Your task to perform on an android device: star an email in the gmail app Image 0: 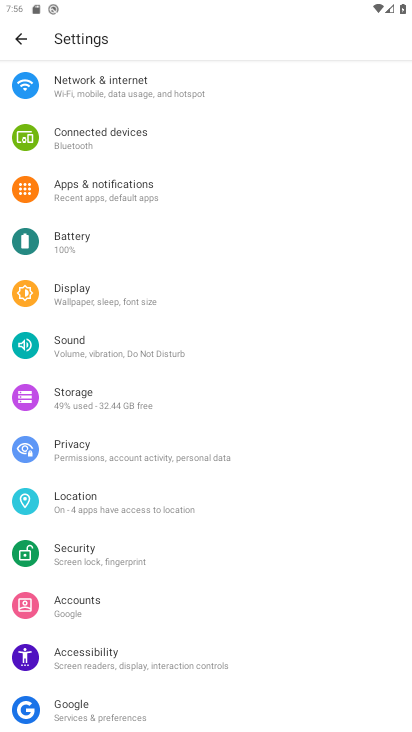
Step 0: press home button
Your task to perform on an android device: star an email in the gmail app Image 1: 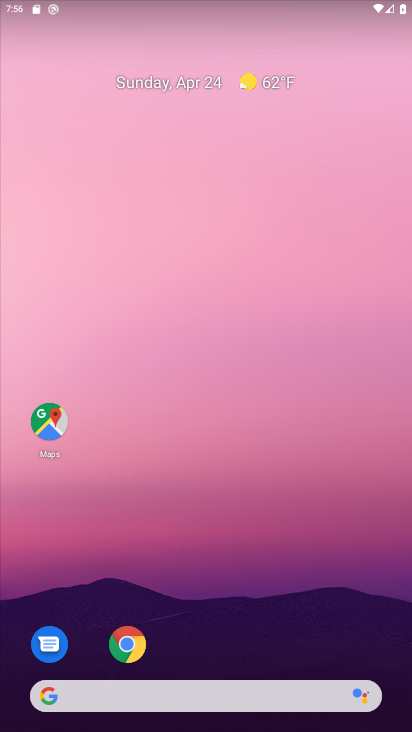
Step 1: drag from (210, 654) to (240, 41)
Your task to perform on an android device: star an email in the gmail app Image 2: 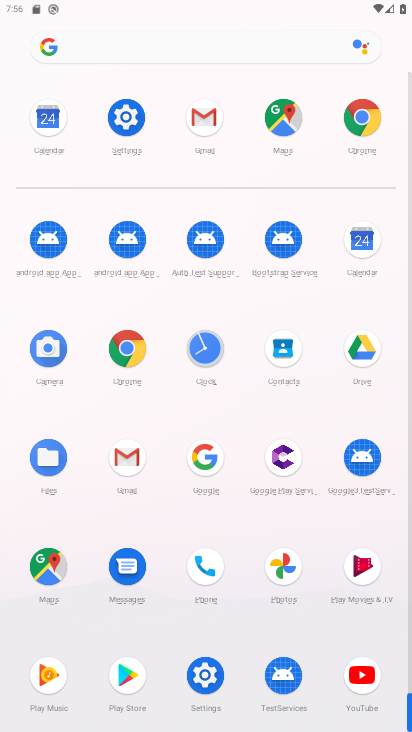
Step 2: click (125, 454)
Your task to perform on an android device: star an email in the gmail app Image 3: 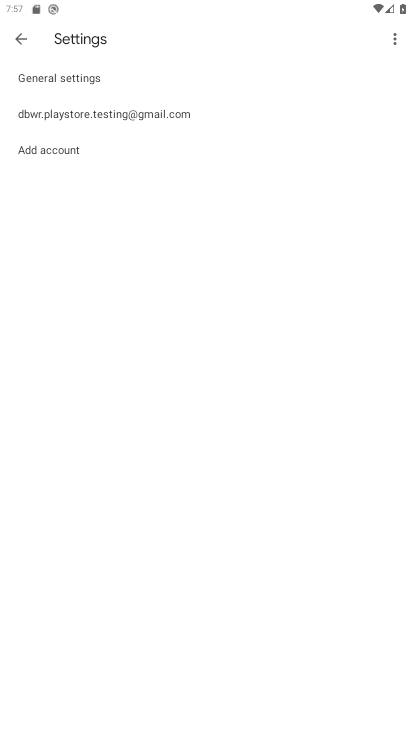
Step 3: click (24, 38)
Your task to perform on an android device: star an email in the gmail app Image 4: 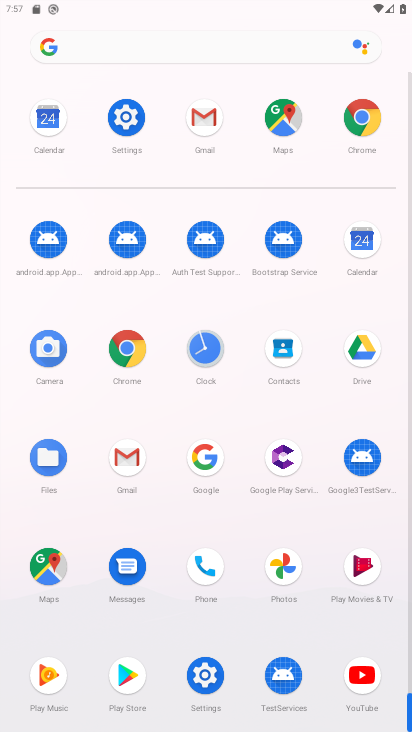
Step 4: click (128, 450)
Your task to perform on an android device: star an email in the gmail app Image 5: 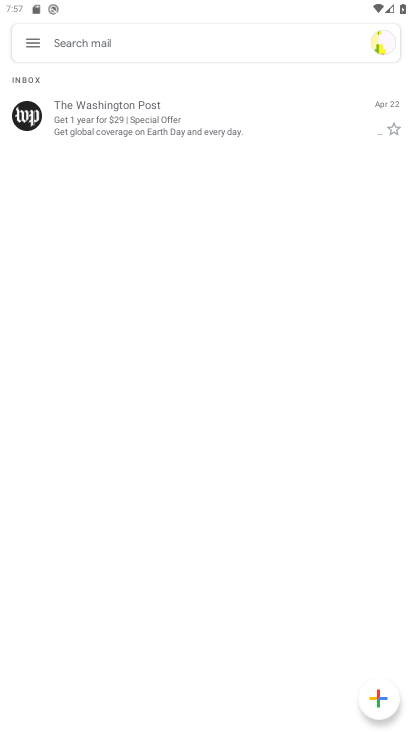
Step 5: click (26, 113)
Your task to perform on an android device: star an email in the gmail app Image 6: 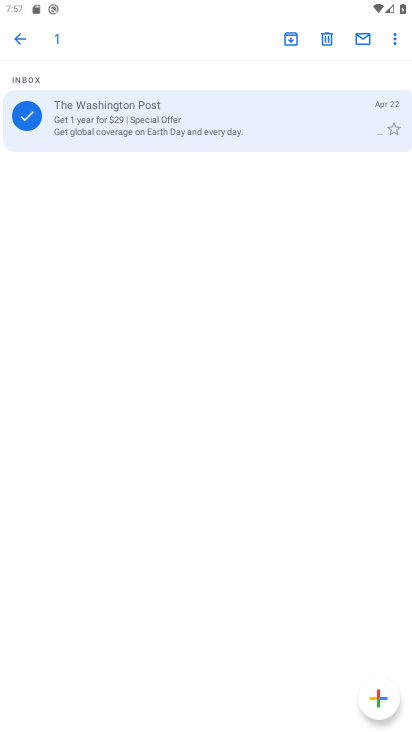
Step 6: click (390, 40)
Your task to perform on an android device: star an email in the gmail app Image 7: 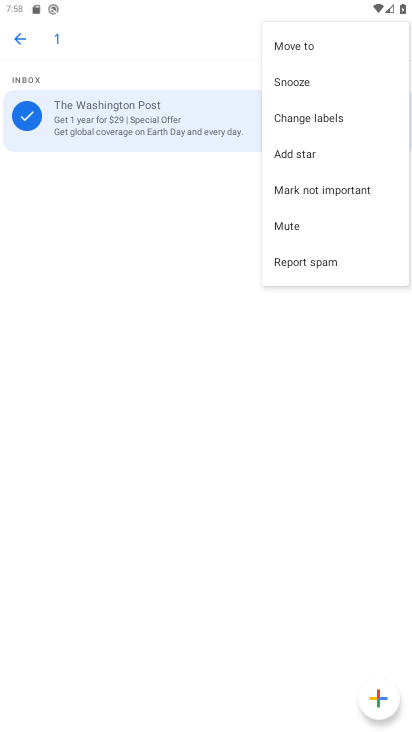
Step 7: click (299, 150)
Your task to perform on an android device: star an email in the gmail app Image 8: 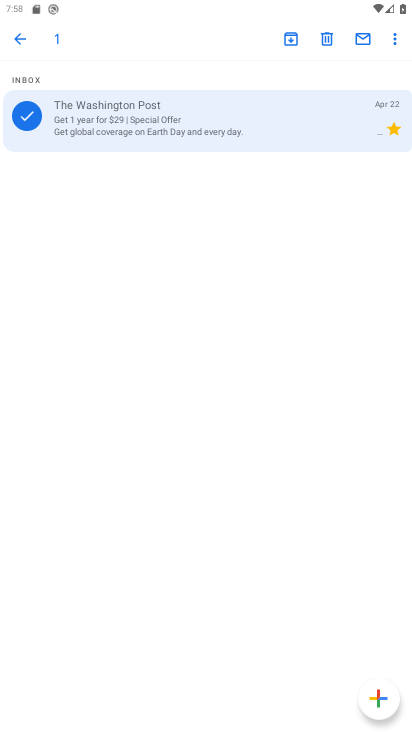
Step 8: task complete